Your task to perform on an android device: change the clock display to digital Image 0: 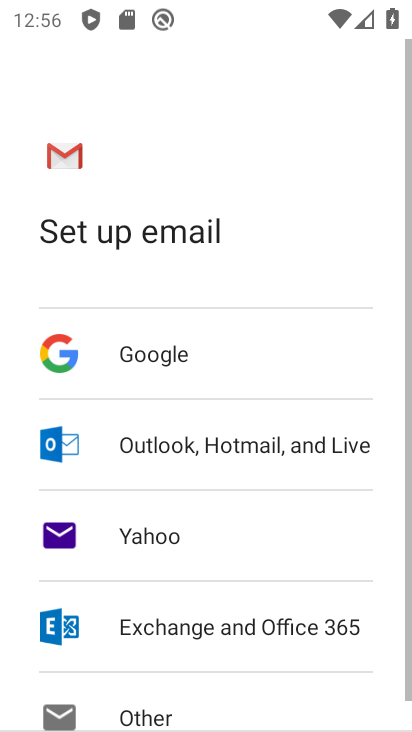
Step 0: press home button
Your task to perform on an android device: change the clock display to digital Image 1: 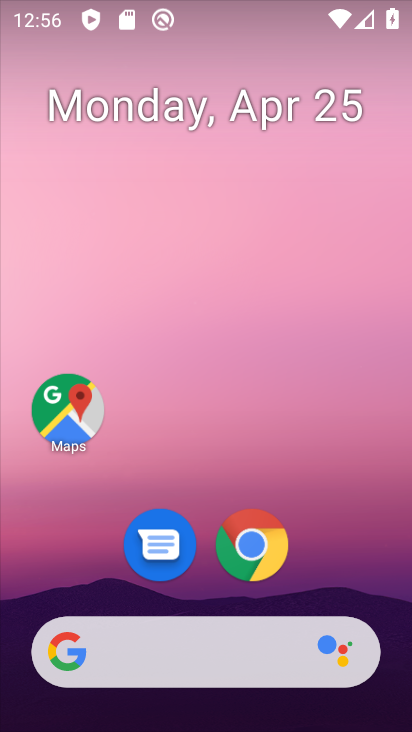
Step 1: drag from (352, 533) to (96, 76)
Your task to perform on an android device: change the clock display to digital Image 2: 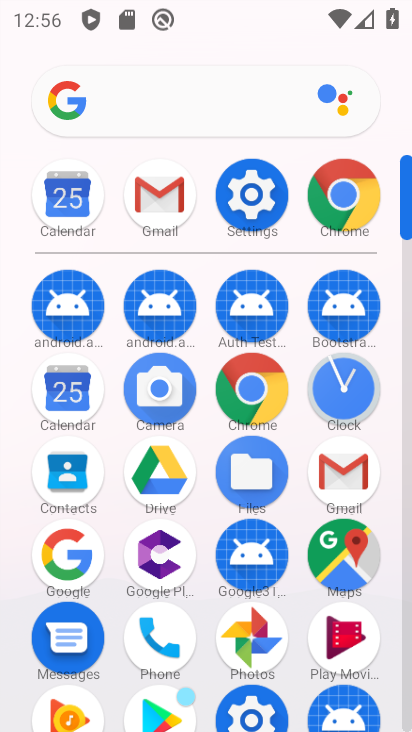
Step 2: click (346, 391)
Your task to perform on an android device: change the clock display to digital Image 3: 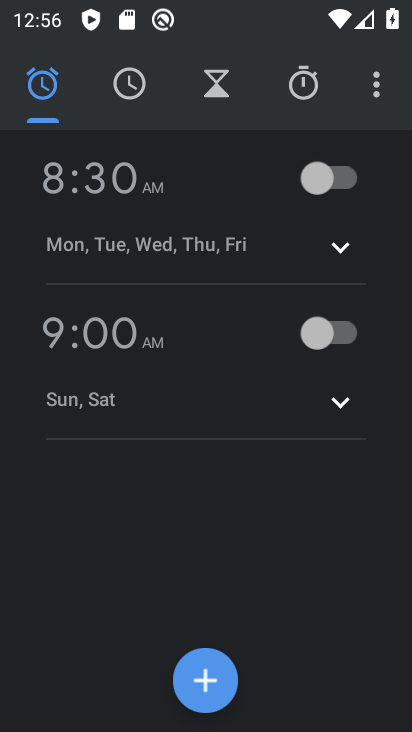
Step 3: click (381, 89)
Your task to perform on an android device: change the clock display to digital Image 4: 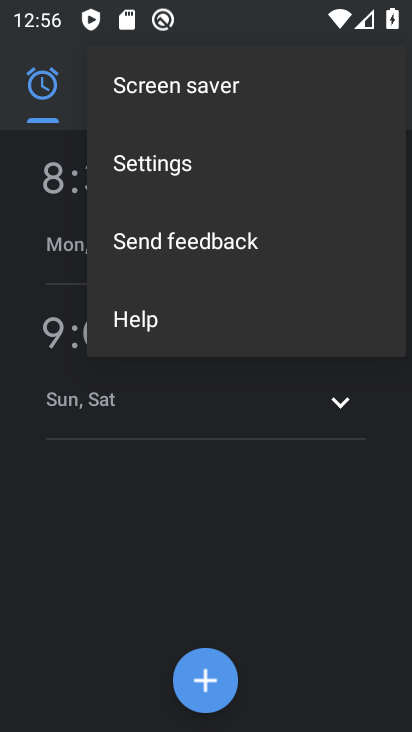
Step 4: click (160, 160)
Your task to perform on an android device: change the clock display to digital Image 5: 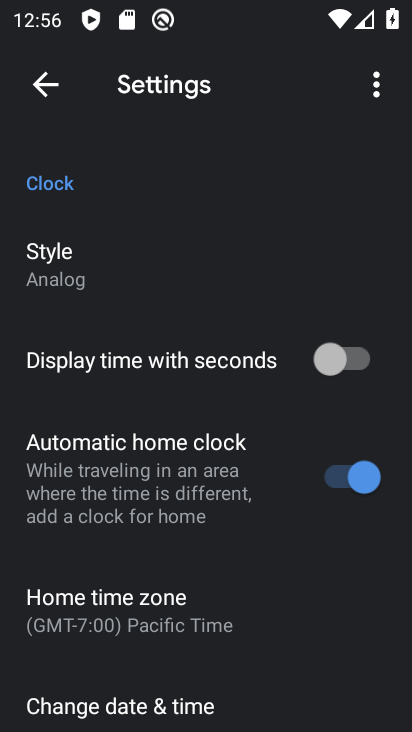
Step 5: click (63, 280)
Your task to perform on an android device: change the clock display to digital Image 6: 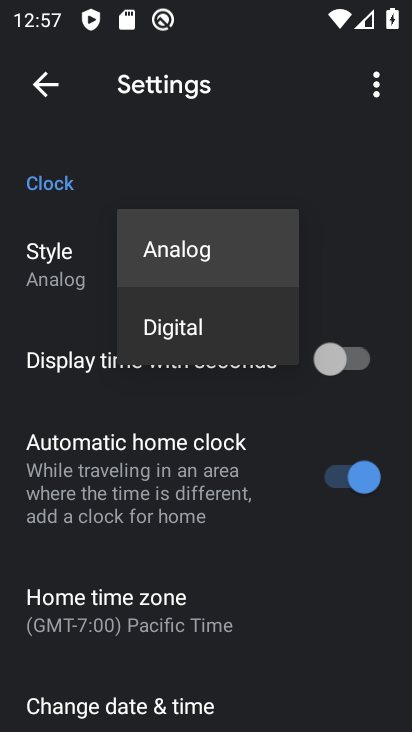
Step 6: click (186, 333)
Your task to perform on an android device: change the clock display to digital Image 7: 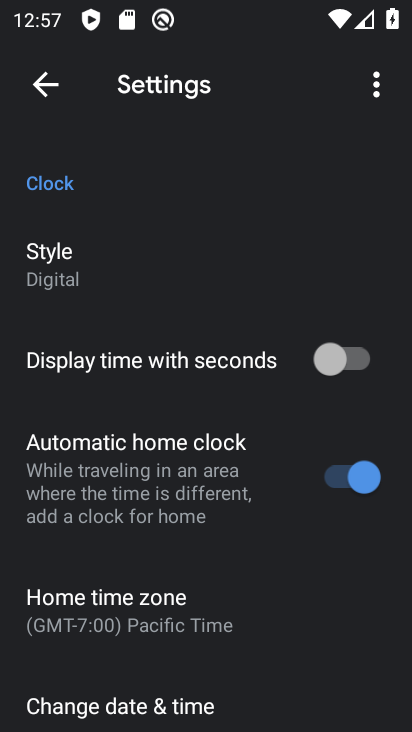
Step 7: task complete